Your task to perform on an android device: Open the map Image 0: 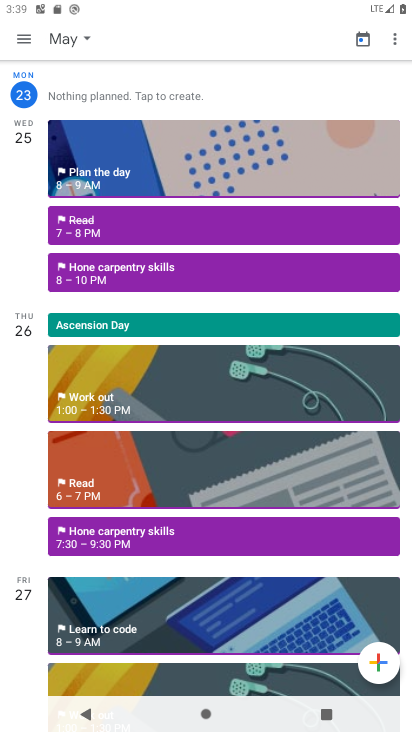
Step 0: press home button
Your task to perform on an android device: Open the map Image 1: 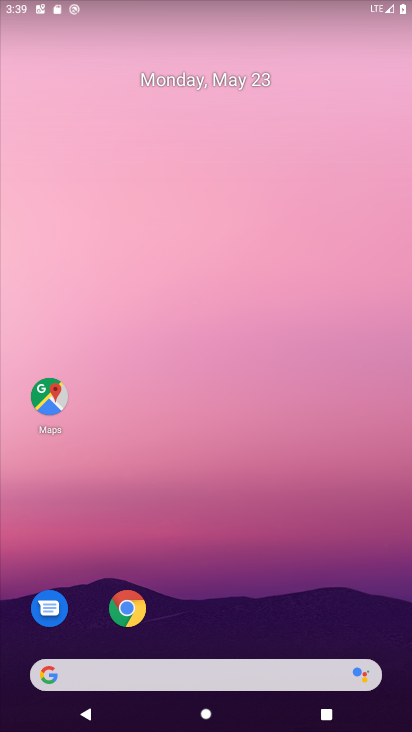
Step 1: click (50, 409)
Your task to perform on an android device: Open the map Image 2: 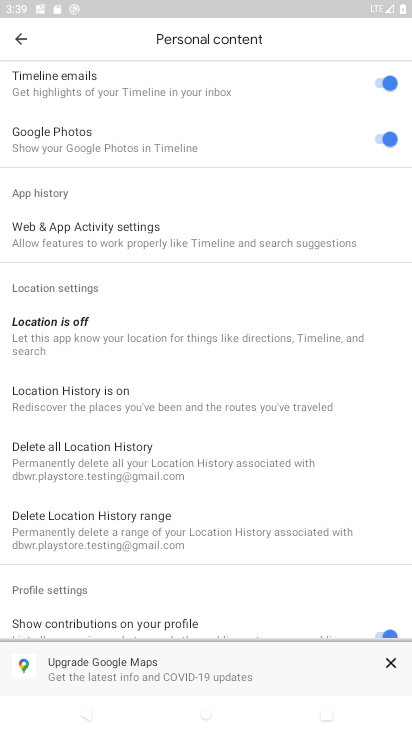
Step 2: click (24, 44)
Your task to perform on an android device: Open the map Image 3: 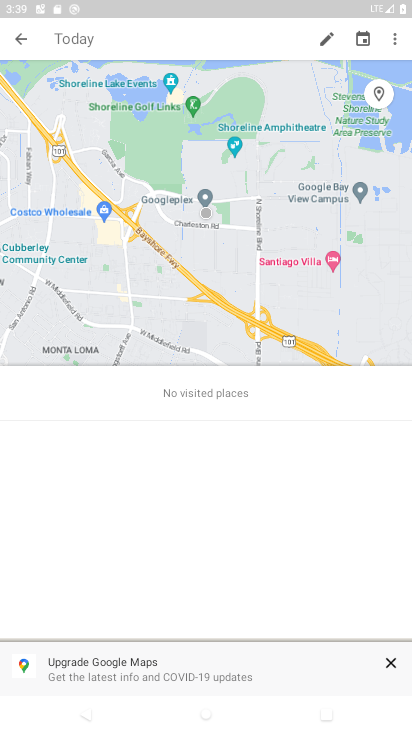
Step 3: task complete